Your task to perform on an android device: Open Maps and search for coffee Image 0: 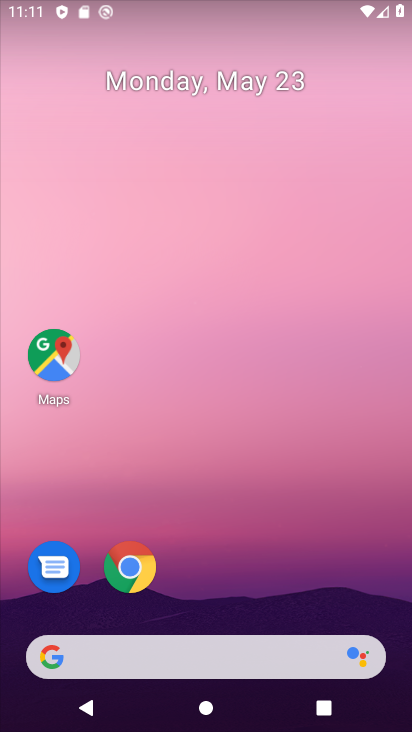
Step 0: drag from (364, 581) to (362, 91)
Your task to perform on an android device: Open Maps and search for coffee Image 1: 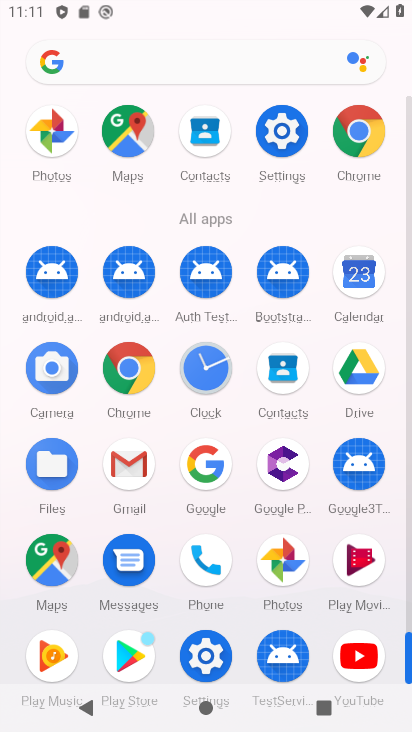
Step 1: drag from (242, 621) to (249, 291)
Your task to perform on an android device: Open Maps and search for coffee Image 2: 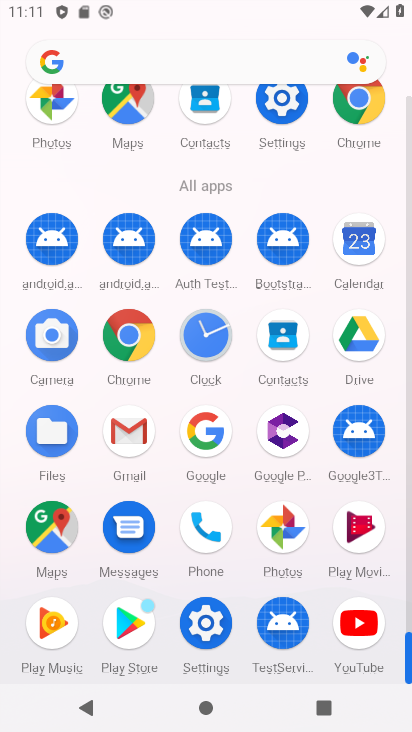
Step 2: click (54, 532)
Your task to perform on an android device: Open Maps and search for coffee Image 3: 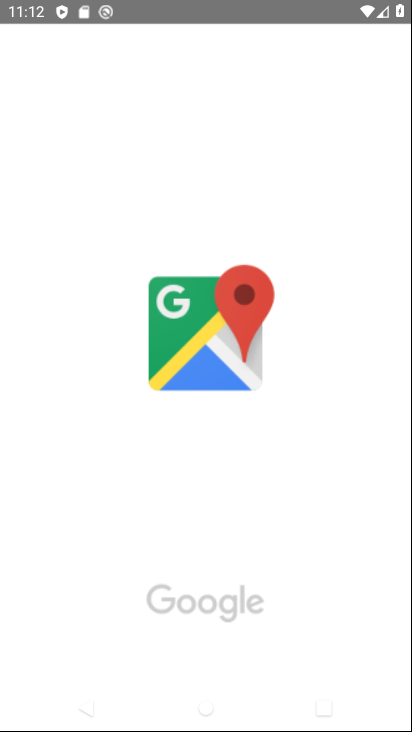
Step 3: task complete